Your task to perform on an android device: Open calendar and show me the fourth week of next month Image 0: 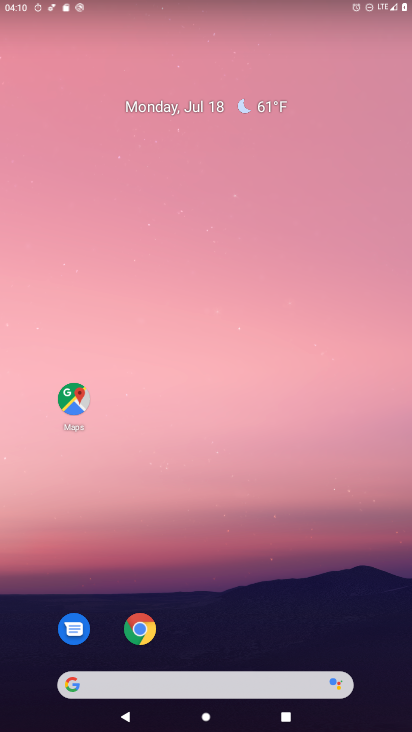
Step 0: drag from (274, 682) to (287, 112)
Your task to perform on an android device: Open calendar and show me the fourth week of next month Image 1: 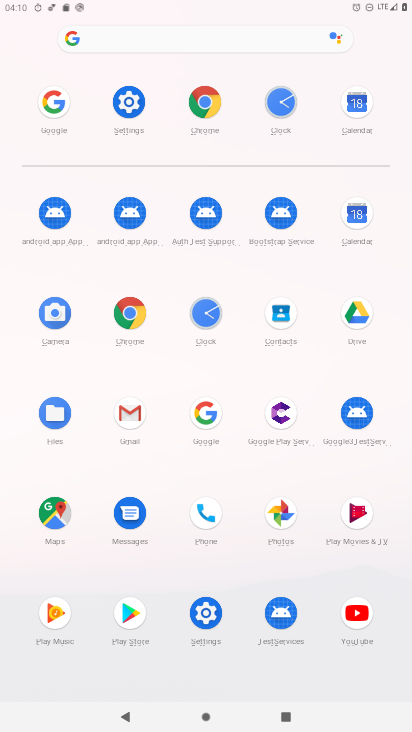
Step 1: click (356, 105)
Your task to perform on an android device: Open calendar and show me the fourth week of next month Image 2: 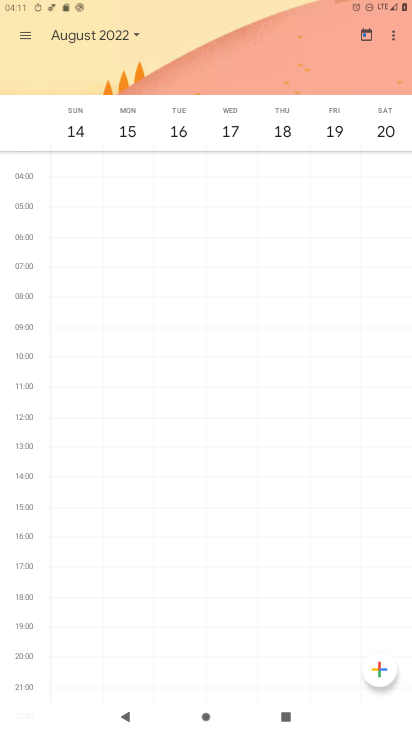
Step 2: click (369, 34)
Your task to perform on an android device: Open calendar and show me the fourth week of next month Image 3: 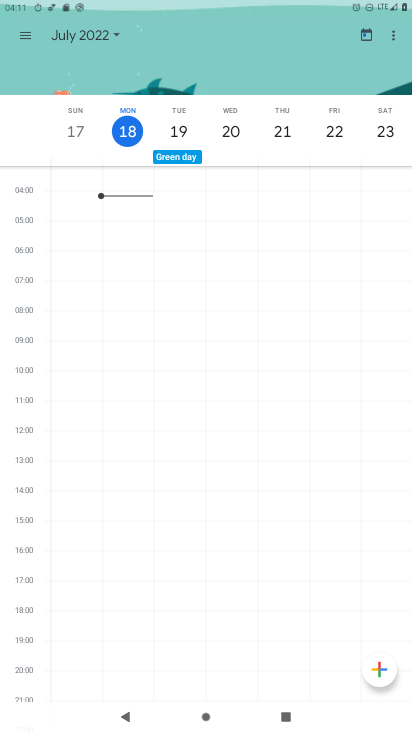
Step 3: click (367, 45)
Your task to perform on an android device: Open calendar and show me the fourth week of next month Image 4: 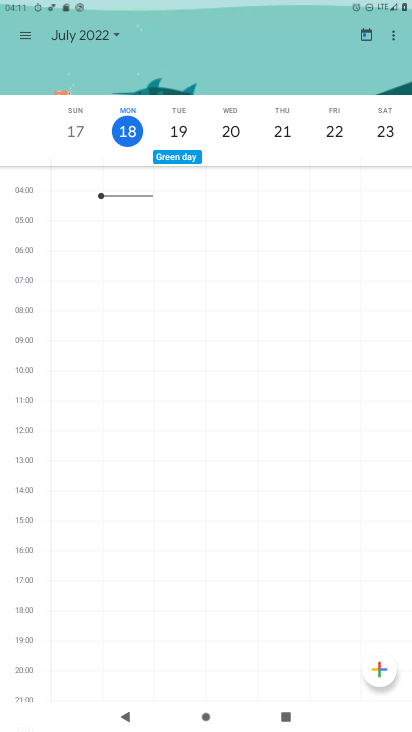
Step 4: click (117, 36)
Your task to perform on an android device: Open calendar and show me the fourth week of next month Image 5: 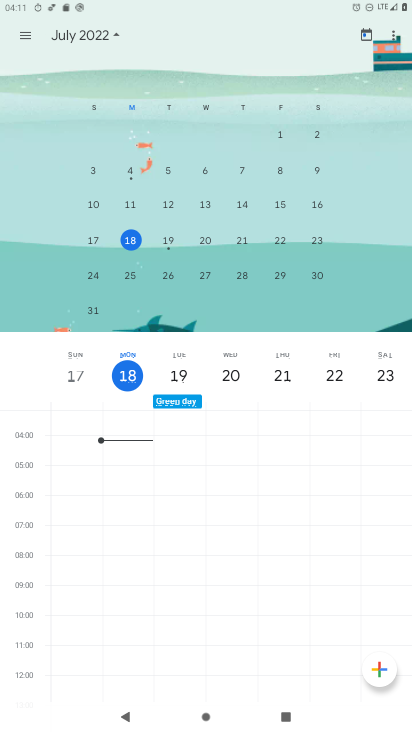
Step 5: drag from (311, 250) to (28, 271)
Your task to perform on an android device: Open calendar and show me the fourth week of next month Image 6: 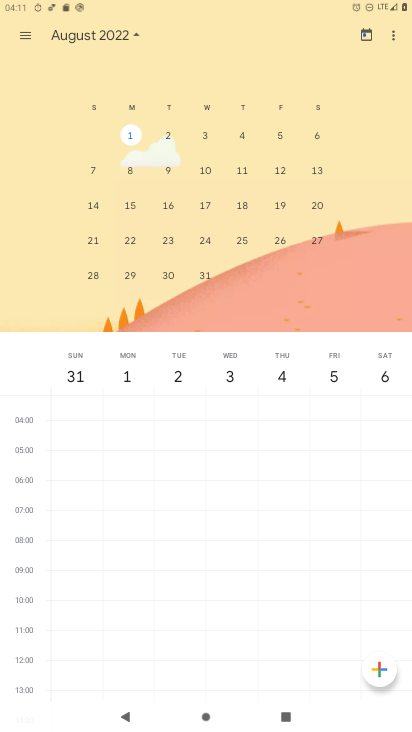
Step 6: click (131, 235)
Your task to perform on an android device: Open calendar and show me the fourth week of next month Image 7: 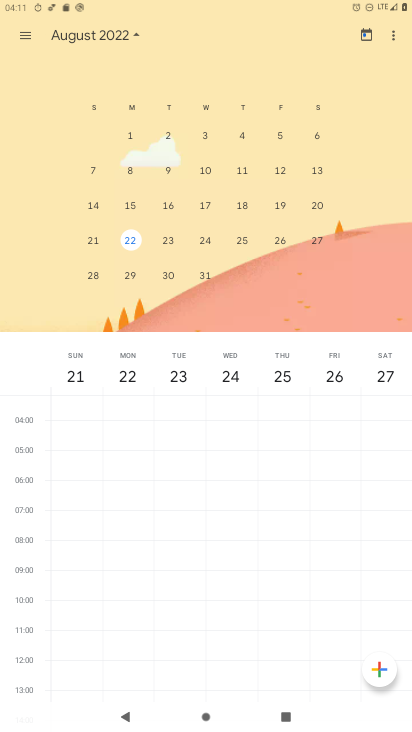
Step 7: click (22, 34)
Your task to perform on an android device: Open calendar and show me the fourth week of next month Image 8: 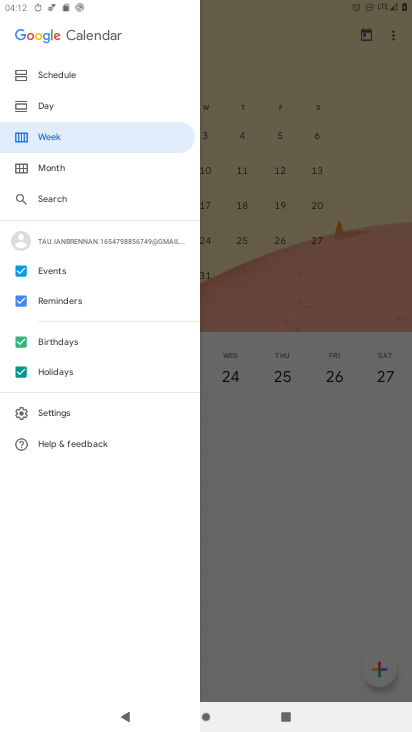
Step 8: click (66, 132)
Your task to perform on an android device: Open calendar and show me the fourth week of next month Image 9: 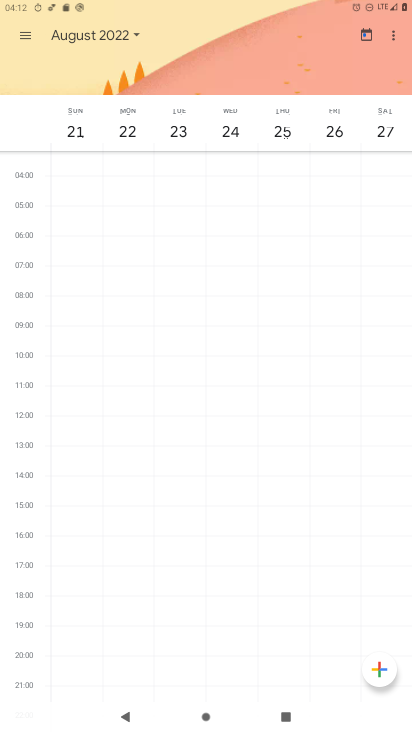
Step 9: task complete